Your task to perform on an android device: toggle location history Image 0: 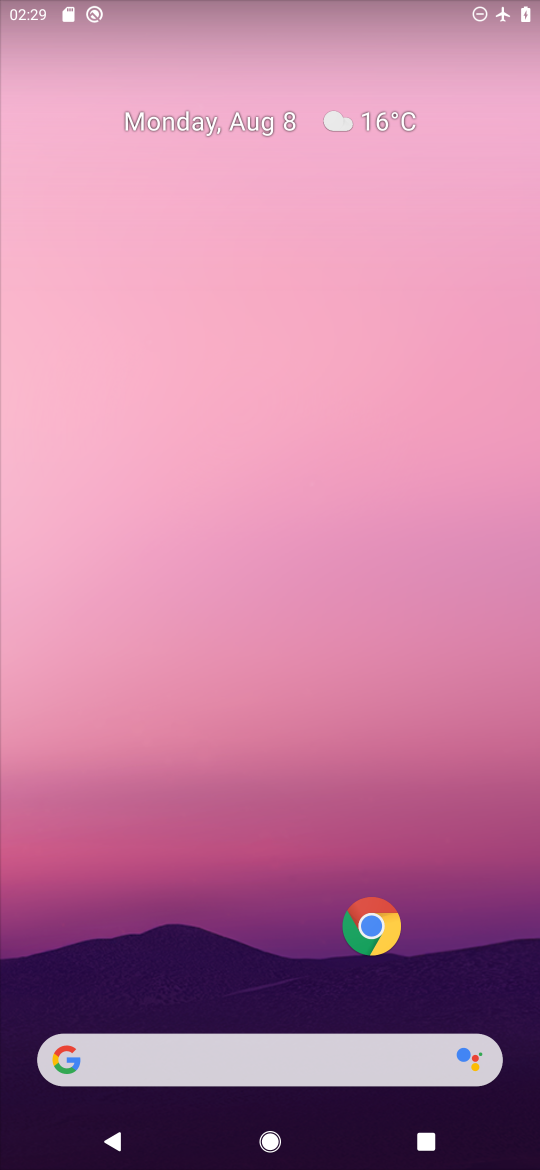
Step 0: drag from (216, 924) to (220, 204)
Your task to perform on an android device: toggle location history Image 1: 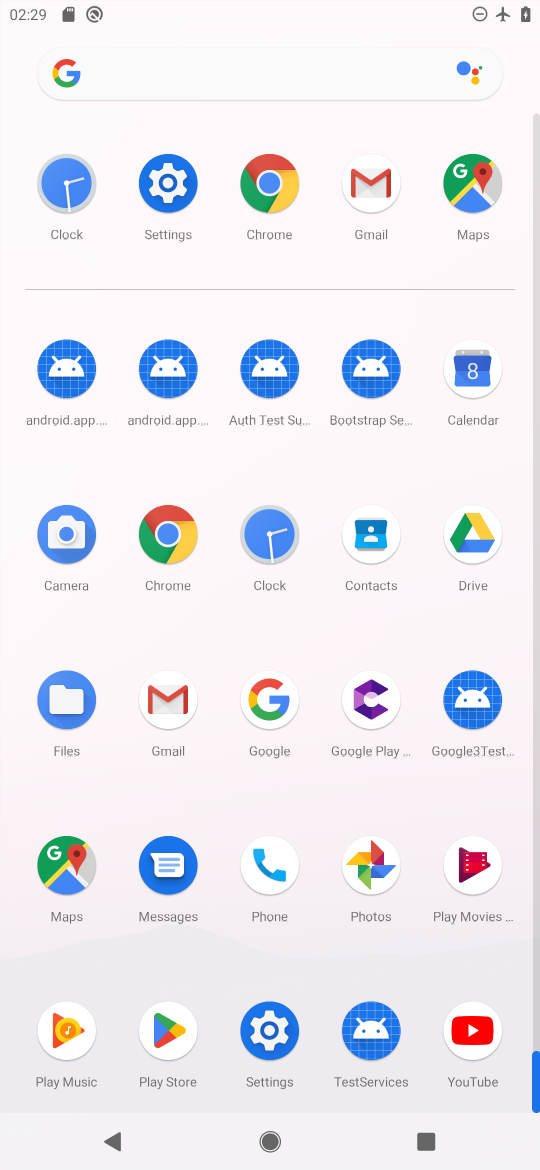
Step 1: click (181, 180)
Your task to perform on an android device: toggle location history Image 2: 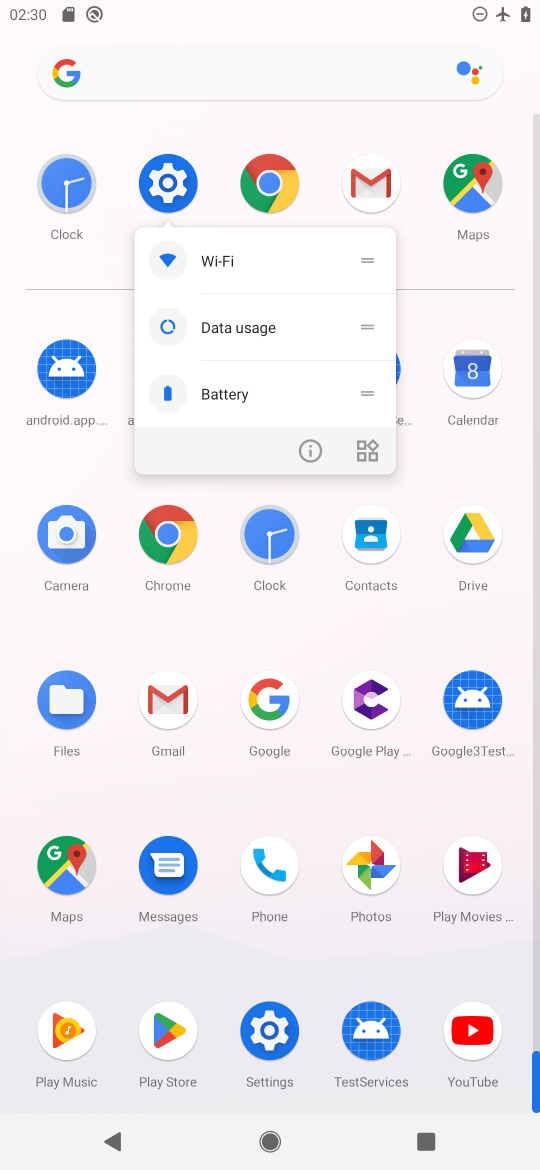
Step 2: click (181, 180)
Your task to perform on an android device: toggle location history Image 3: 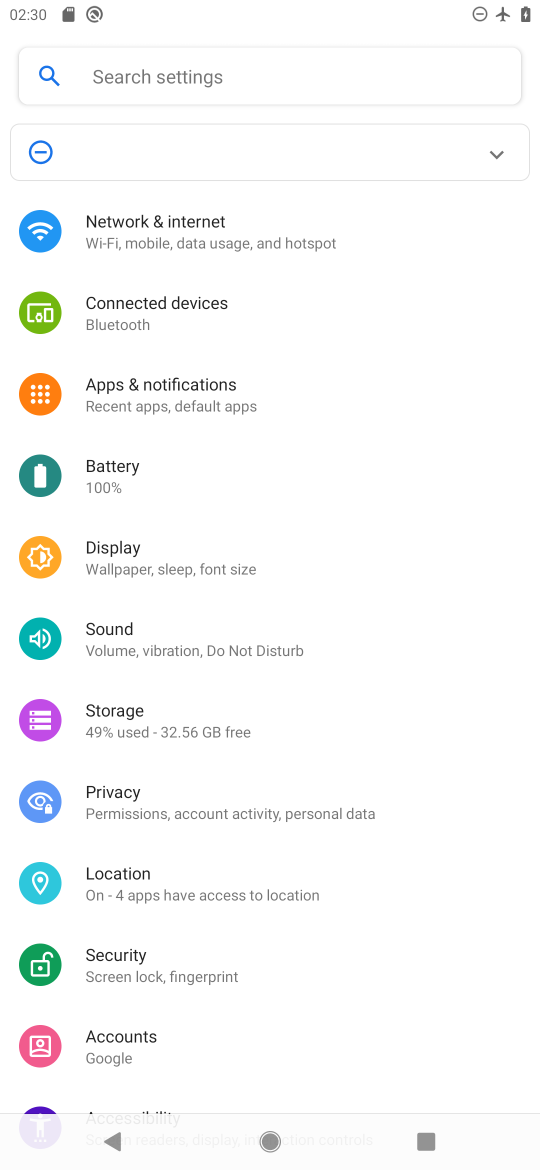
Step 3: click (167, 849)
Your task to perform on an android device: toggle location history Image 4: 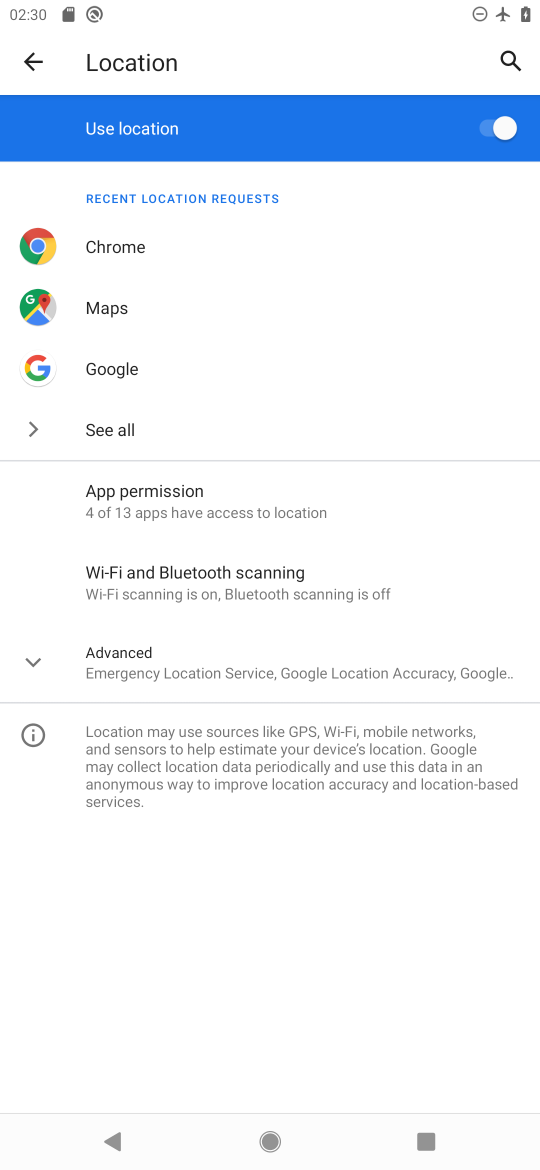
Step 4: click (202, 686)
Your task to perform on an android device: toggle location history Image 5: 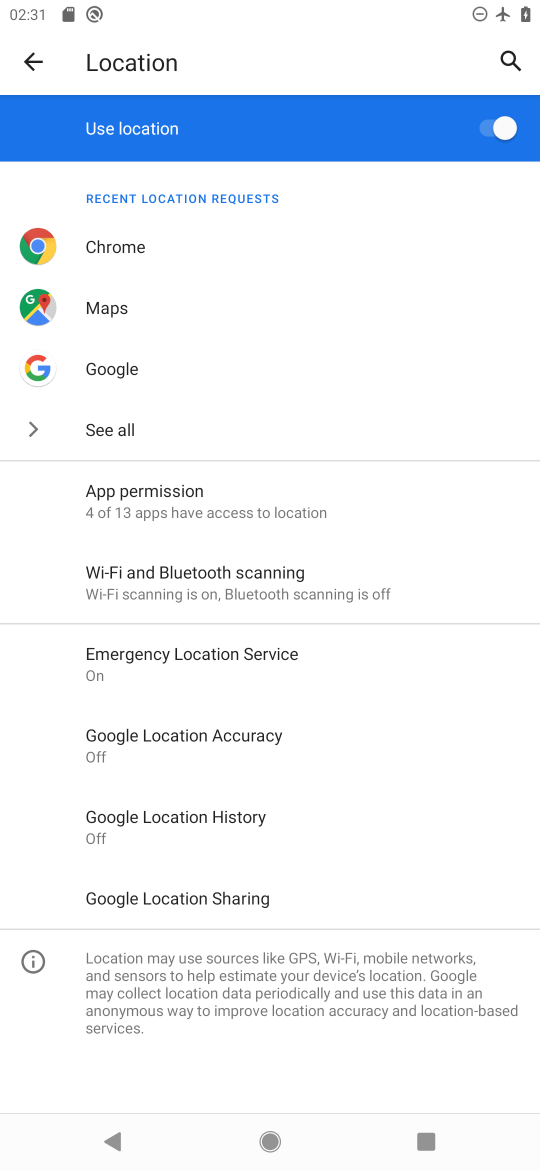
Step 5: task complete